Your task to perform on an android device: Open Chrome and go to settings Image 0: 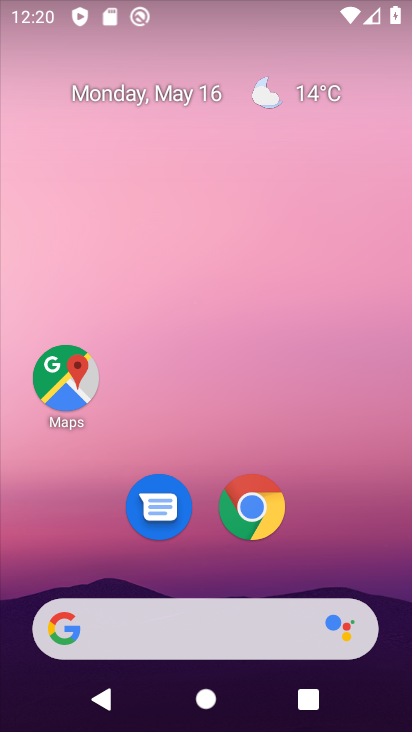
Step 0: click (286, 501)
Your task to perform on an android device: Open Chrome and go to settings Image 1: 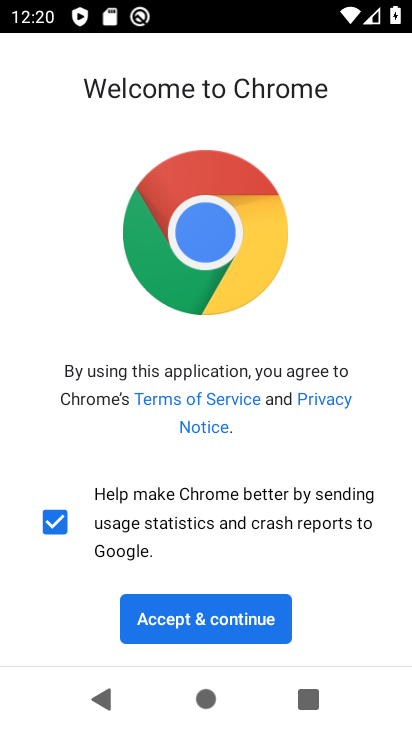
Step 1: click (209, 623)
Your task to perform on an android device: Open Chrome and go to settings Image 2: 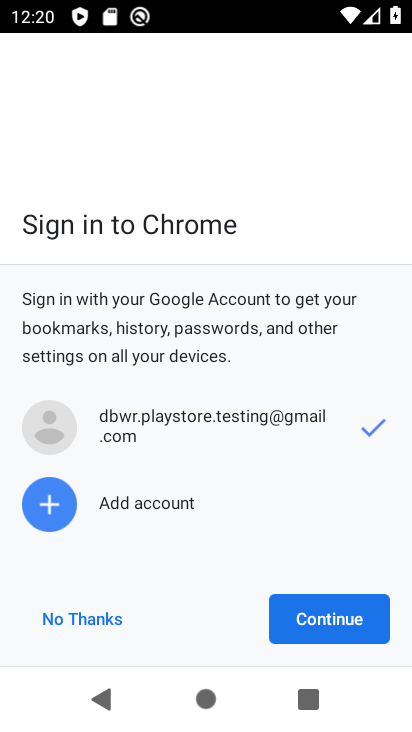
Step 2: click (313, 617)
Your task to perform on an android device: Open Chrome and go to settings Image 3: 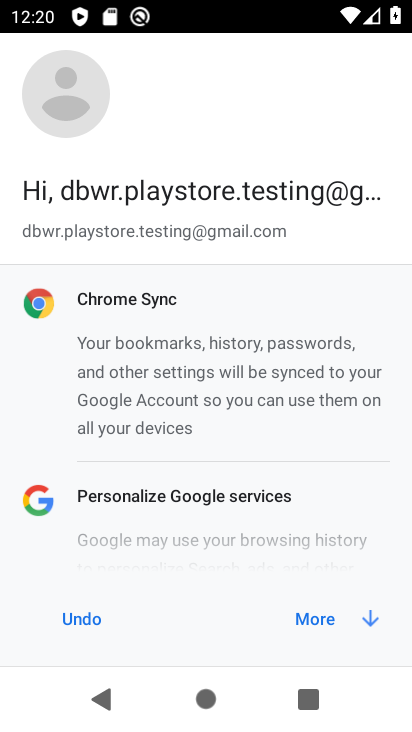
Step 3: click (315, 622)
Your task to perform on an android device: Open Chrome and go to settings Image 4: 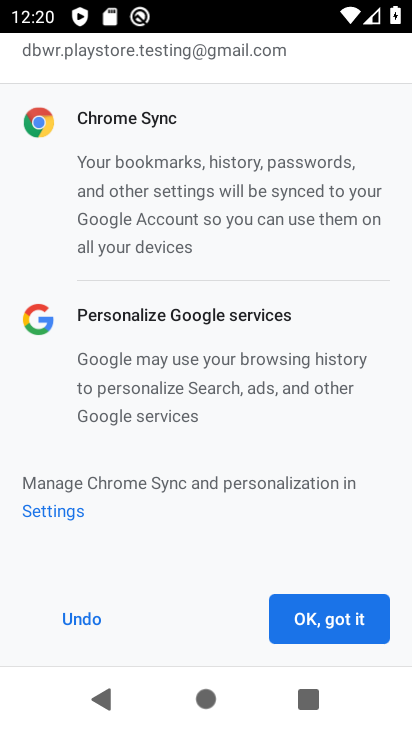
Step 4: click (305, 623)
Your task to perform on an android device: Open Chrome and go to settings Image 5: 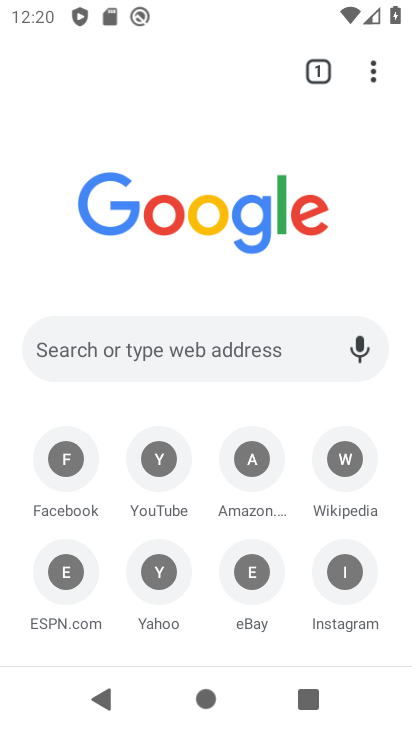
Step 5: task complete